Your task to perform on an android device: move a message to another label in the gmail app Image 0: 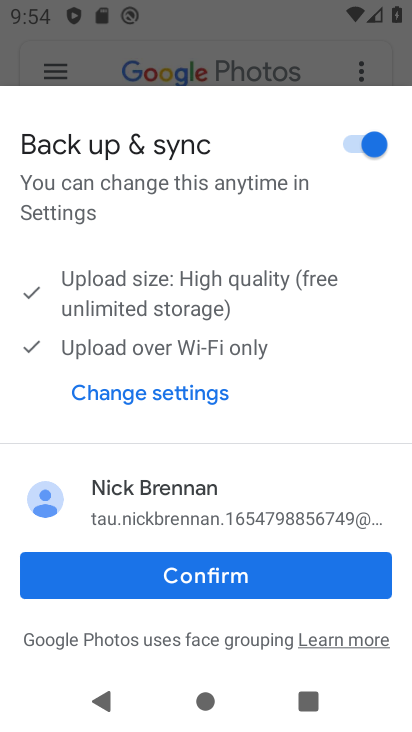
Step 0: press home button
Your task to perform on an android device: move a message to another label in the gmail app Image 1: 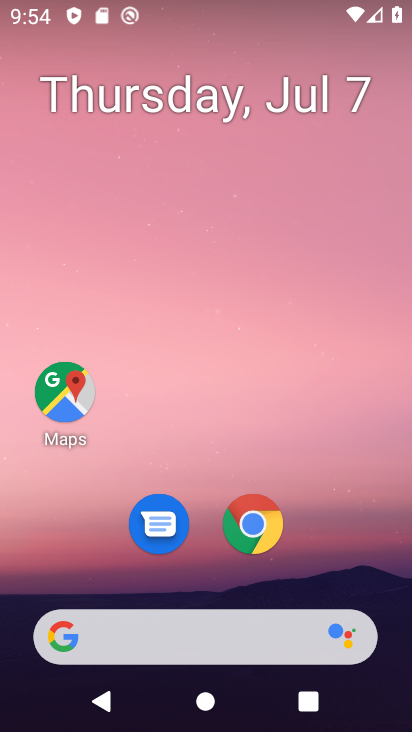
Step 1: drag from (323, 537) to (300, 54)
Your task to perform on an android device: move a message to another label in the gmail app Image 2: 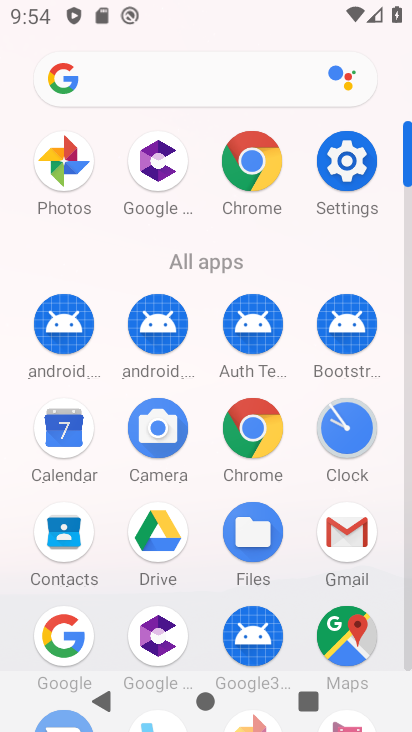
Step 2: click (361, 529)
Your task to perform on an android device: move a message to another label in the gmail app Image 3: 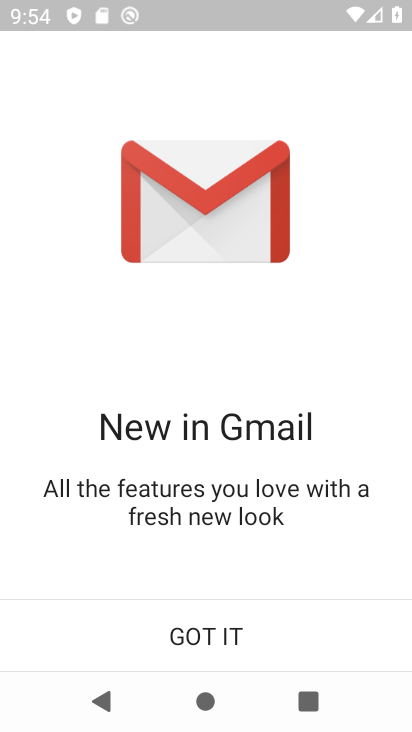
Step 3: click (224, 641)
Your task to perform on an android device: move a message to another label in the gmail app Image 4: 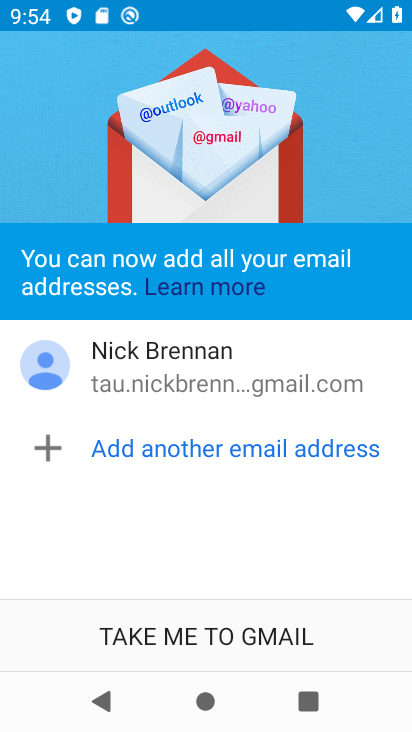
Step 4: click (232, 626)
Your task to perform on an android device: move a message to another label in the gmail app Image 5: 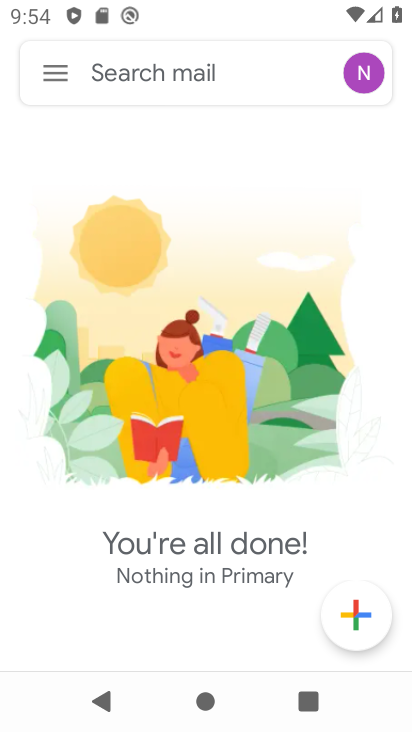
Step 5: click (44, 72)
Your task to perform on an android device: move a message to another label in the gmail app Image 6: 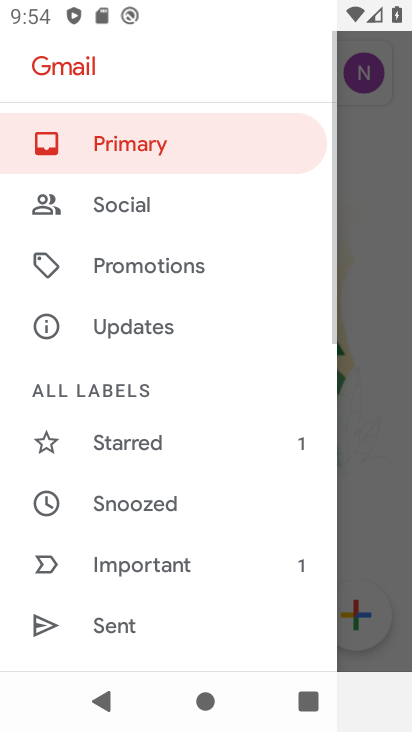
Step 6: drag from (171, 509) to (186, 136)
Your task to perform on an android device: move a message to another label in the gmail app Image 7: 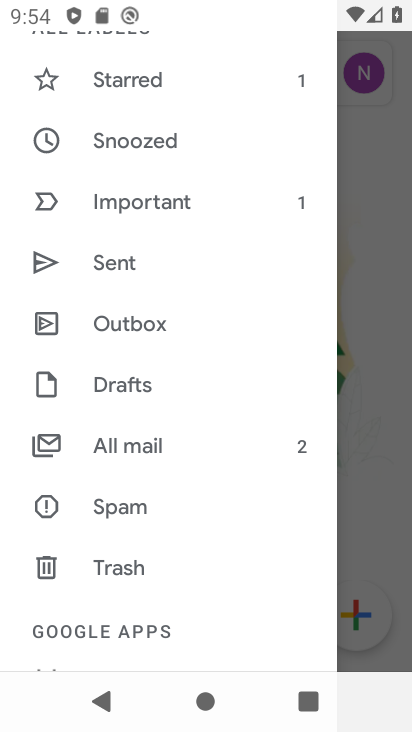
Step 7: click (163, 445)
Your task to perform on an android device: move a message to another label in the gmail app Image 8: 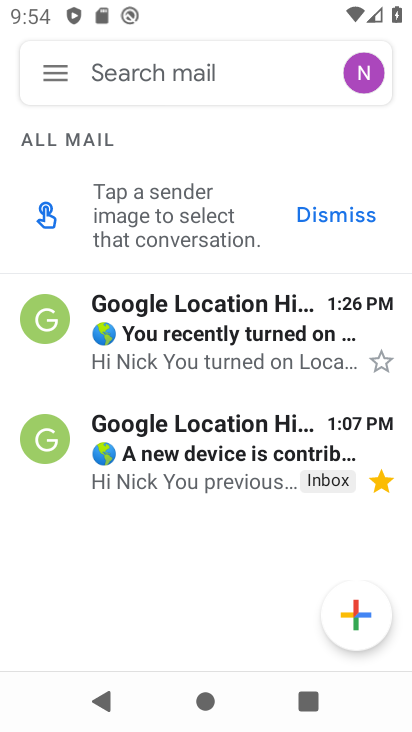
Step 8: click (197, 334)
Your task to perform on an android device: move a message to another label in the gmail app Image 9: 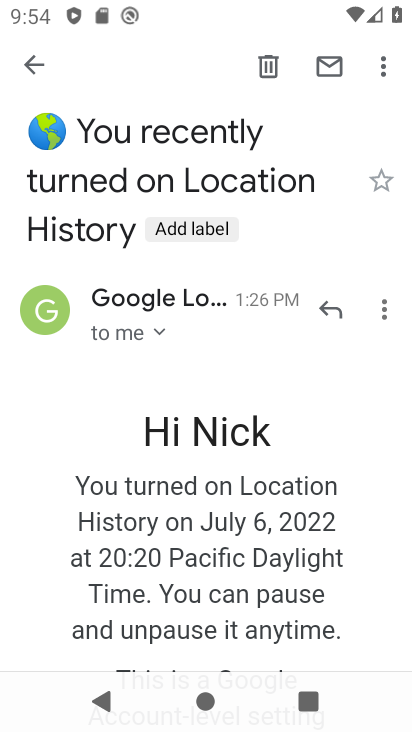
Step 9: click (380, 66)
Your task to perform on an android device: move a message to another label in the gmail app Image 10: 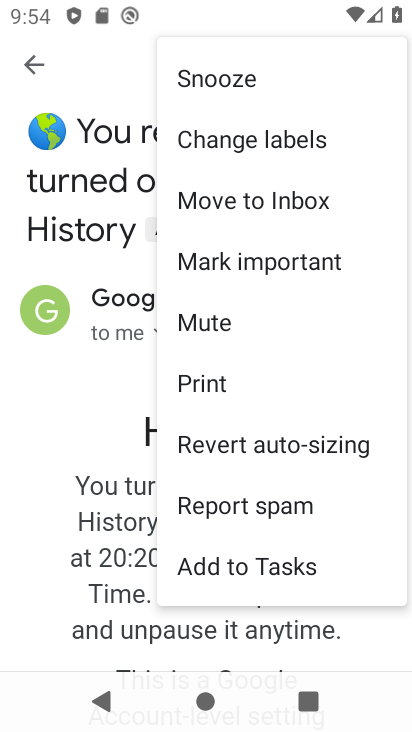
Step 10: click (317, 133)
Your task to perform on an android device: move a message to another label in the gmail app Image 11: 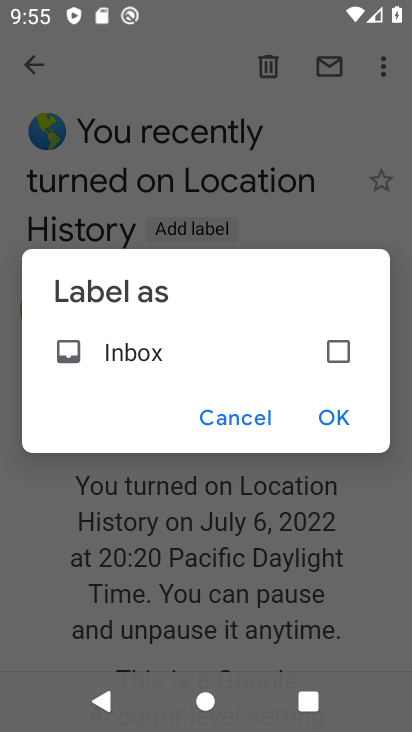
Step 11: click (332, 356)
Your task to perform on an android device: move a message to another label in the gmail app Image 12: 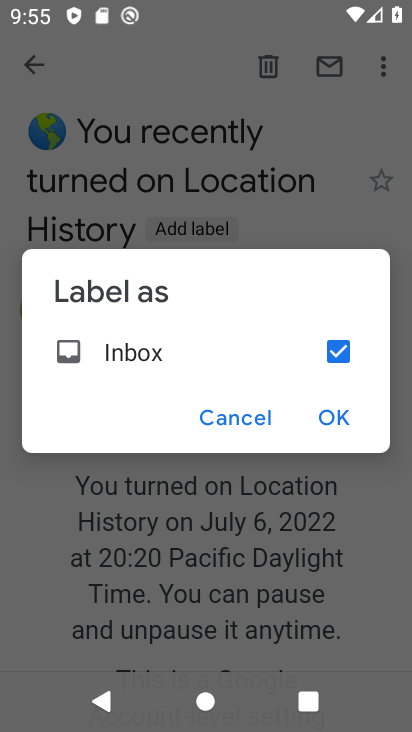
Step 12: click (342, 412)
Your task to perform on an android device: move a message to another label in the gmail app Image 13: 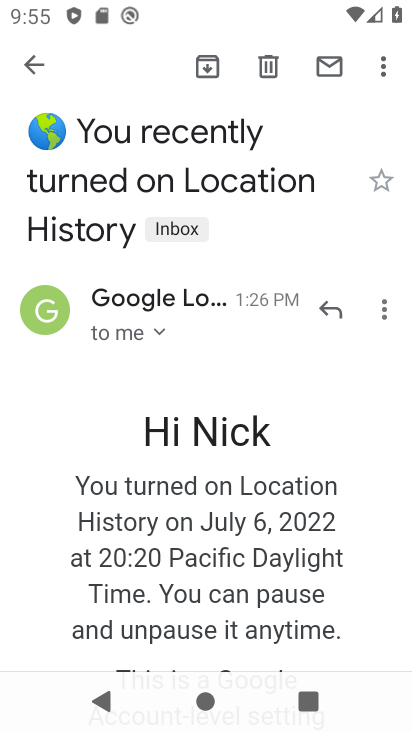
Step 13: task complete